Your task to perform on an android device: Go to sound settings Image 0: 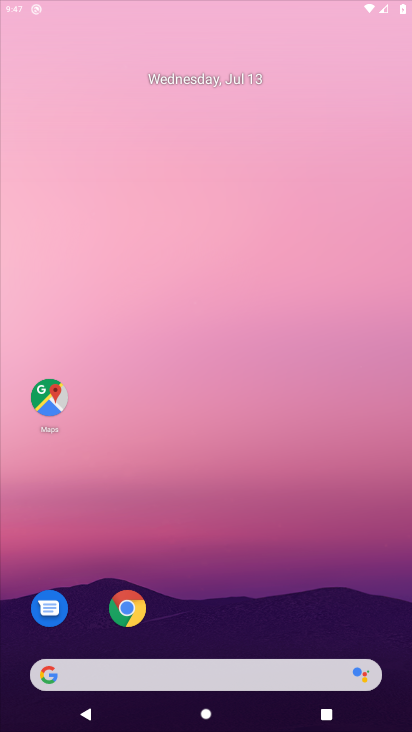
Step 0: drag from (42, 708) to (195, 82)
Your task to perform on an android device: Go to sound settings Image 1: 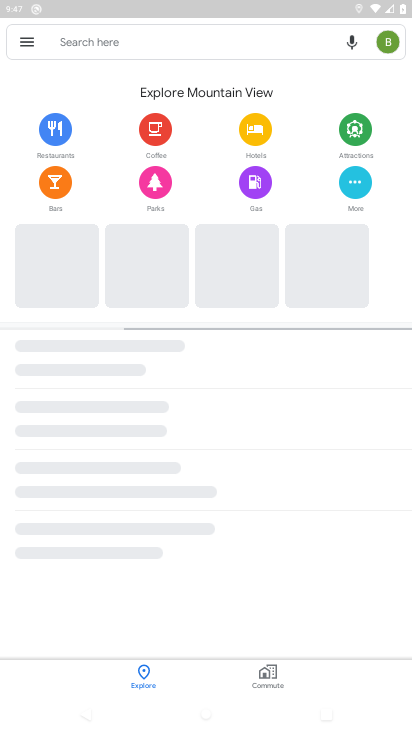
Step 1: press home button
Your task to perform on an android device: Go to sound settings Image 2: 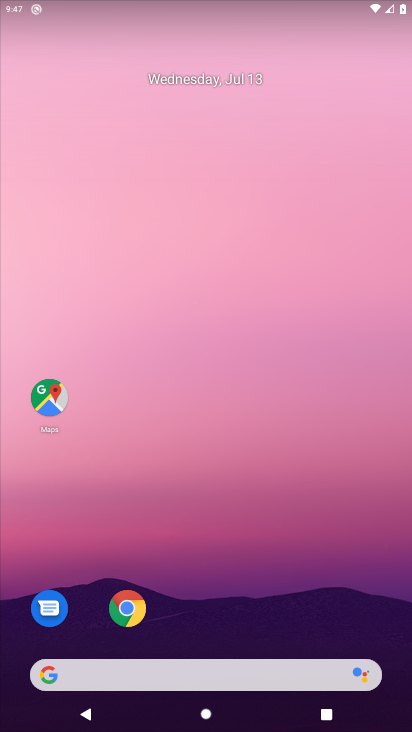
Step 2: drag from (71, 580) to (284, 144)
Your task to perform on an android device: Go to sound settings Image 3: 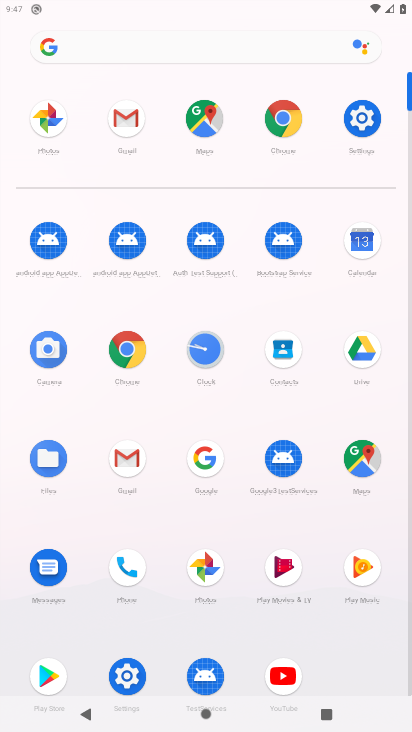
Step 3: click (123, 686)
Your task to perform on an android device: Go to sound settings Image 4: 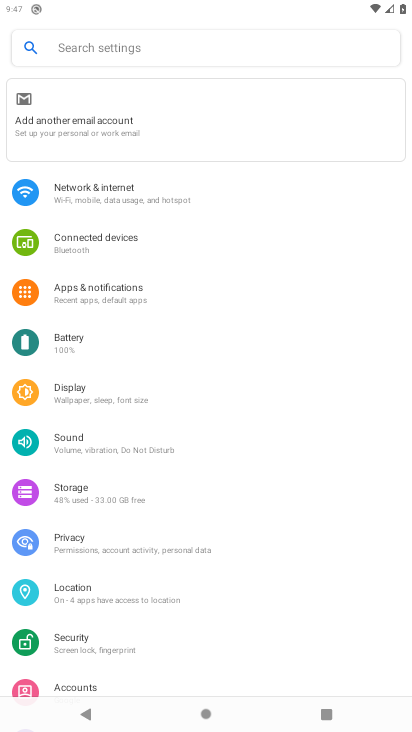
Step 4: click (90, 445)
Your task to perform on an android device: Go to sound settings Image 5: 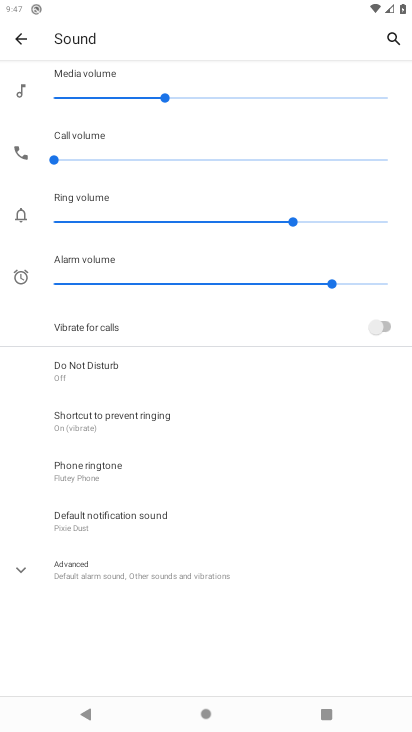
Step 5: task complete